Your task to perform on an android device: uninstall "Move to iOS" Image 0: 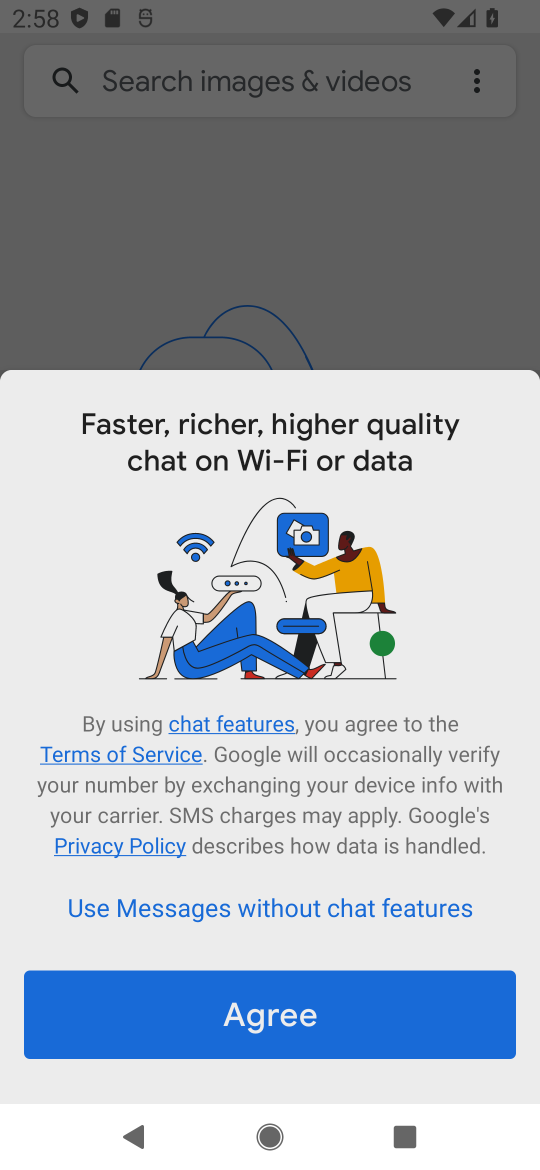
Step 0: press home button
Your task to perform on an android device: uninstall "Move to iOS" Image 1: 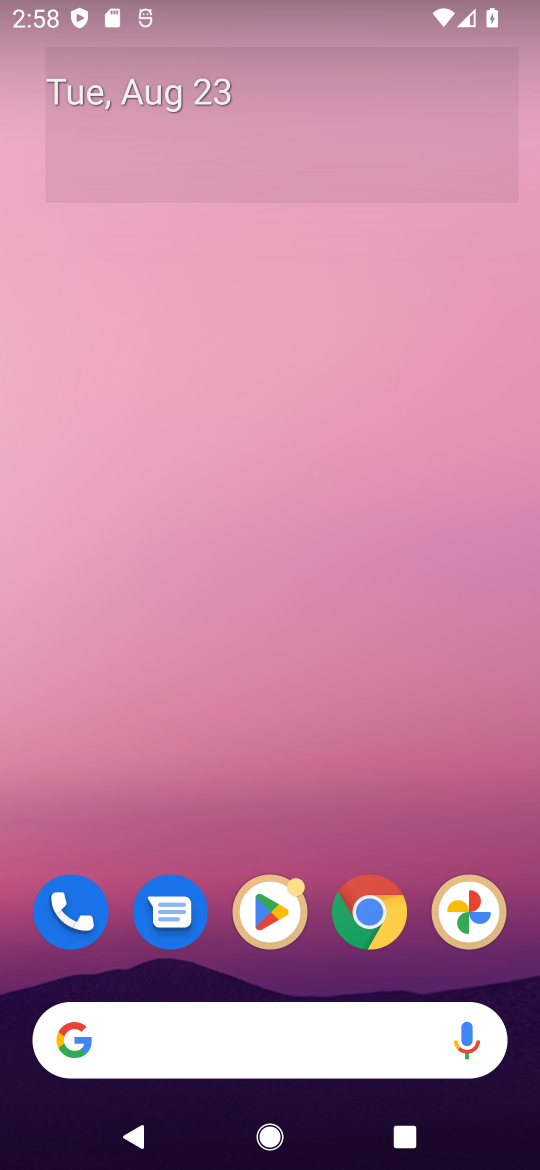
Step 1: drag from (194, 1049) to (159, 297)
Your task to perform on an android device: uninstall "Move to iOS" Image 2: 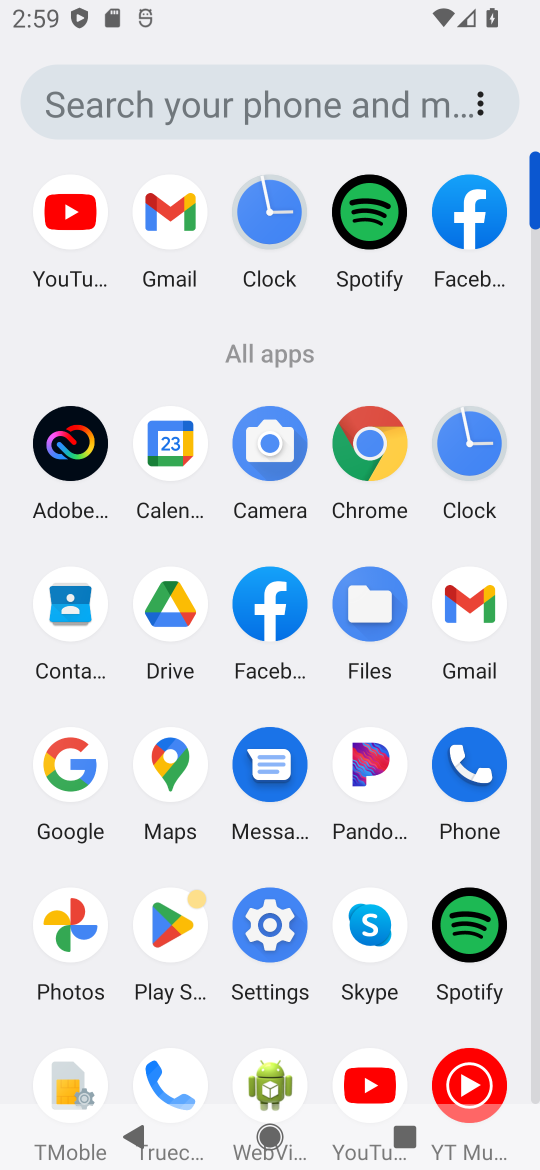
Step 2: click (177, 927)
Your task to perform on an android device: uninstall "Move to iOS" Image 3: 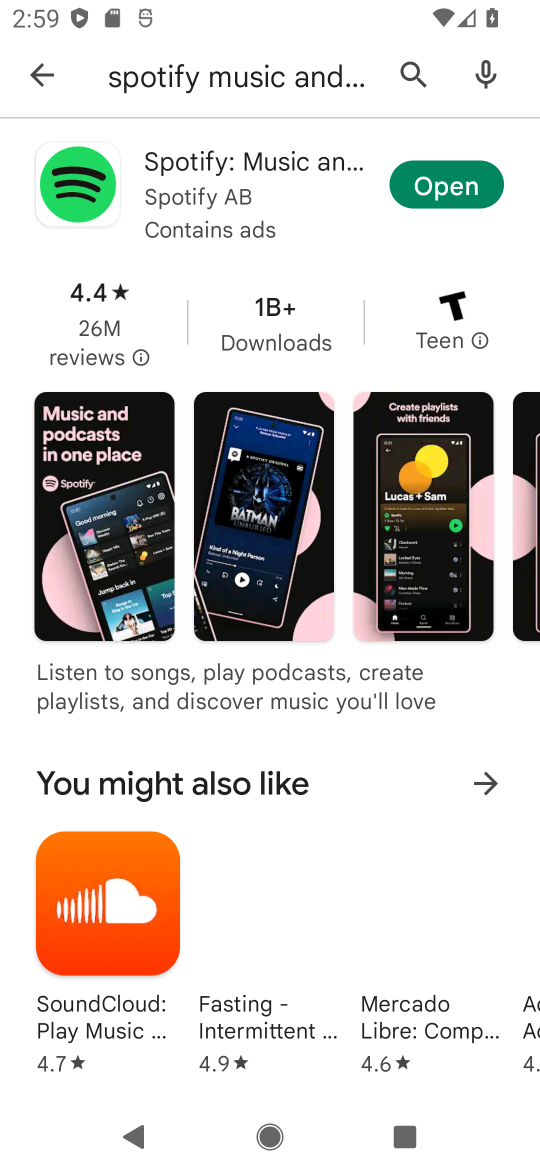
Step 3: press back button
Your task to perform on an android device: uninstall "Move to iOS" Image 4: 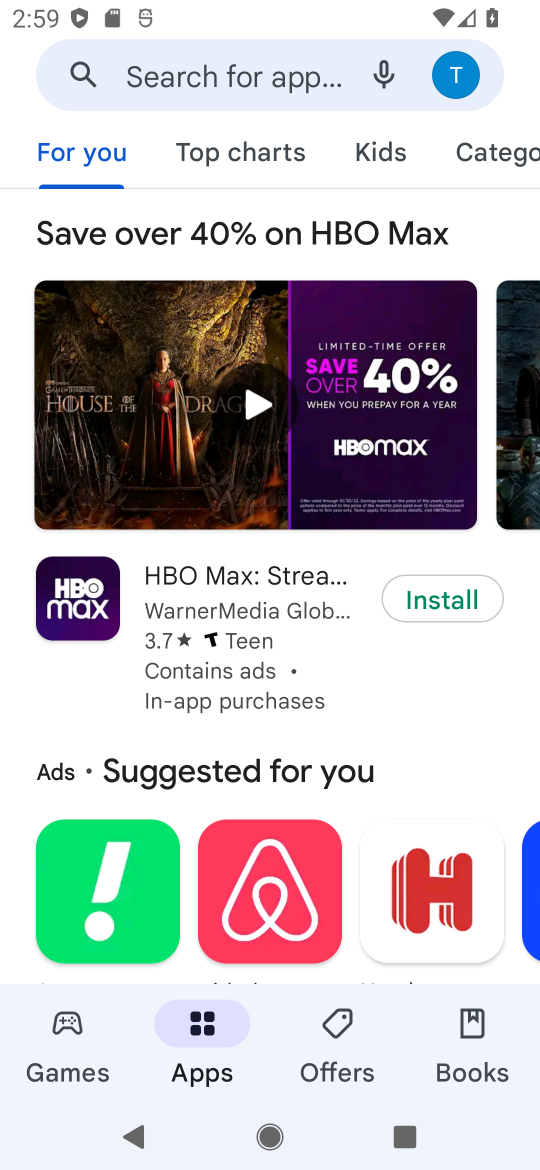
Step 4: click (188, 66)
Your task to perform on an android device: uninstall "Move to iOS" Image 5: 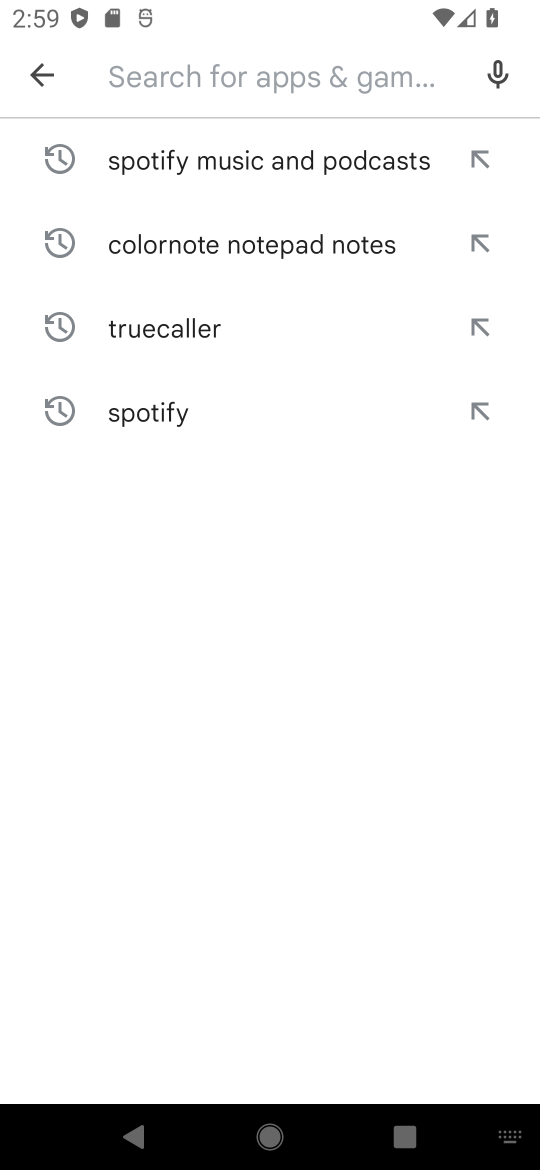
Step 5: type "Move to iOS"
Your task to perform on an android device: uninstall "Move to iOS" Image 6: 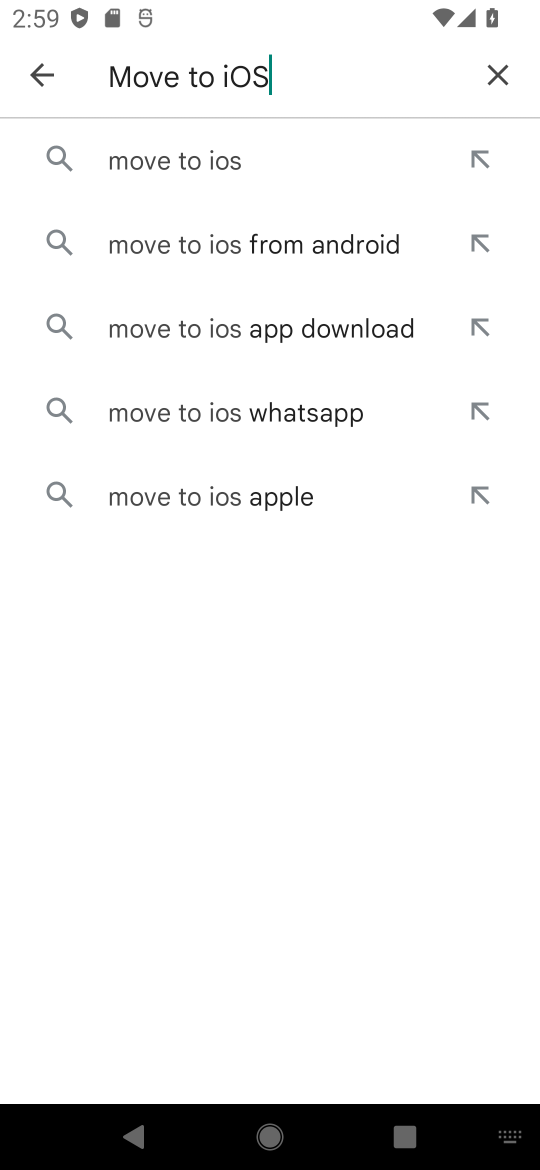
Step 6: click (215, 165)
Your task to perform on an android device: uninstall "Move to iOS" Image 7: 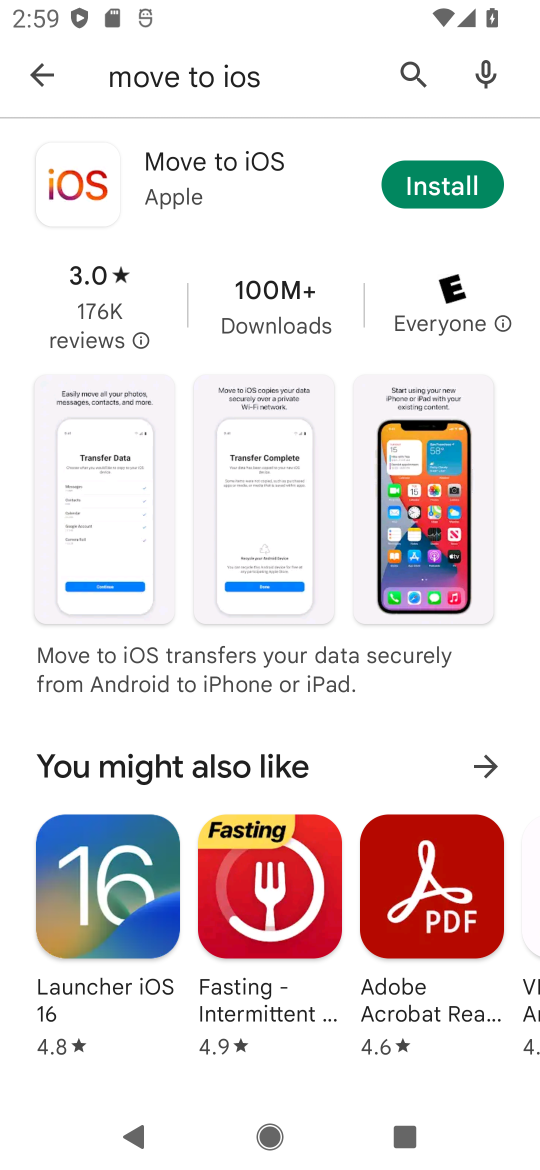
Step 7: task complete